Your task to perform on an android device: open app "Google Keep" (install if not already installed) Image 0: 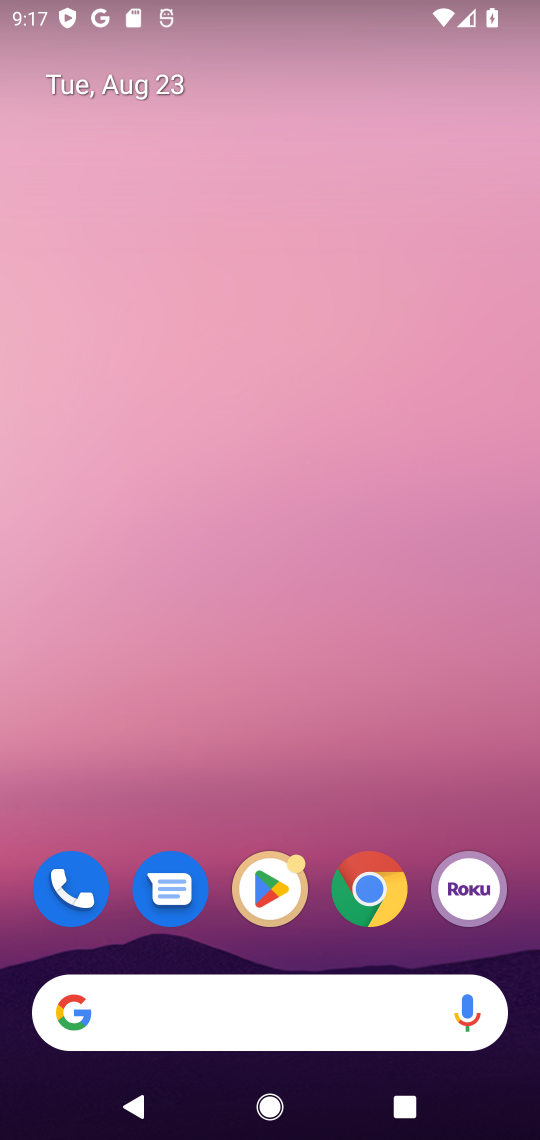
Step 0: click (256, 888)
Your task to perform on an android device: open app "Google Keep" (install if not already installed) Image 1: 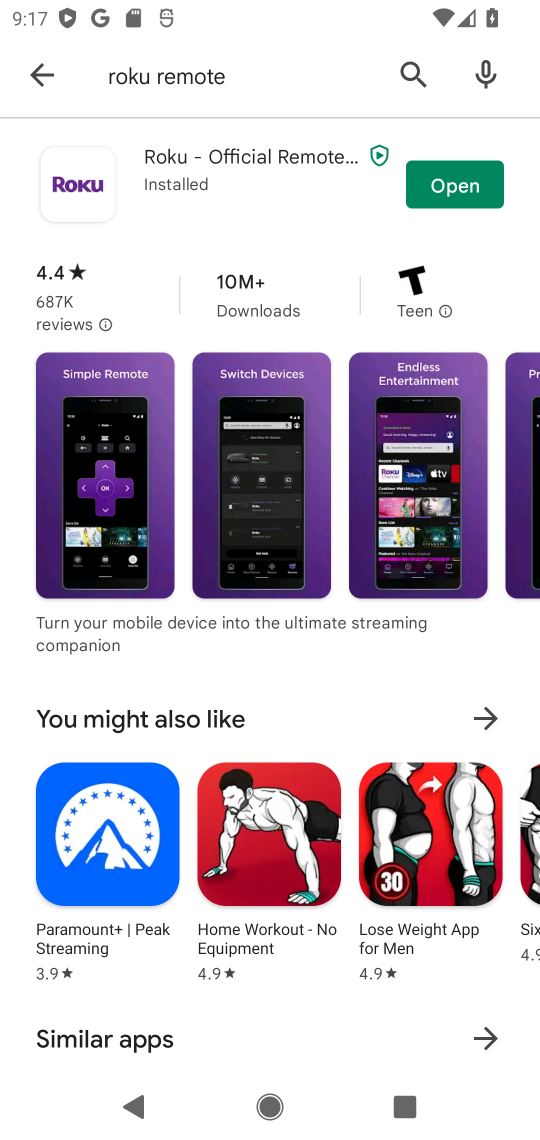
Step 1: click (36, 90)
Your task to perform on an android device: open app "Google Keep" (install if not already installed) Image 2: 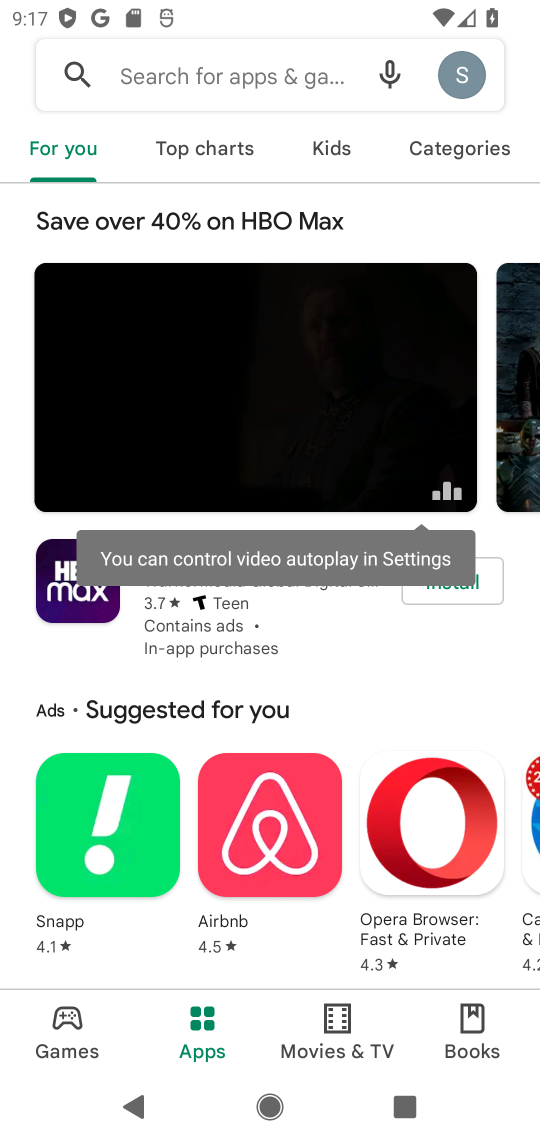
Step 2: click (221, 75)
Your task to perform on an android device: open app "Google Keep" (install if not already installed) Image 3: 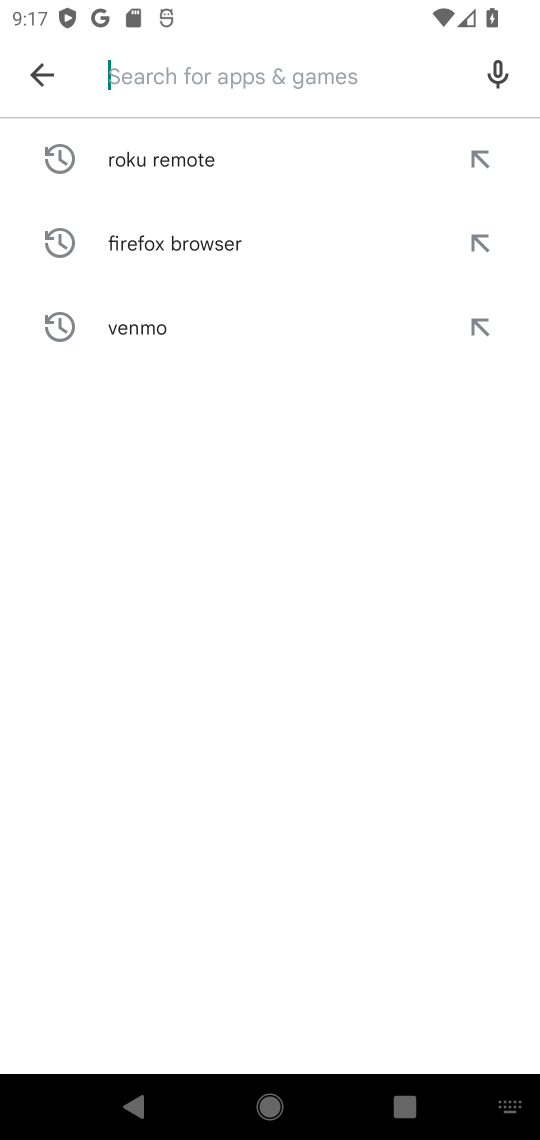
Step 3: type "Google Keep"
Your task to perform on an android device: open app "Google Keep" (install if not already installed) Image 4: 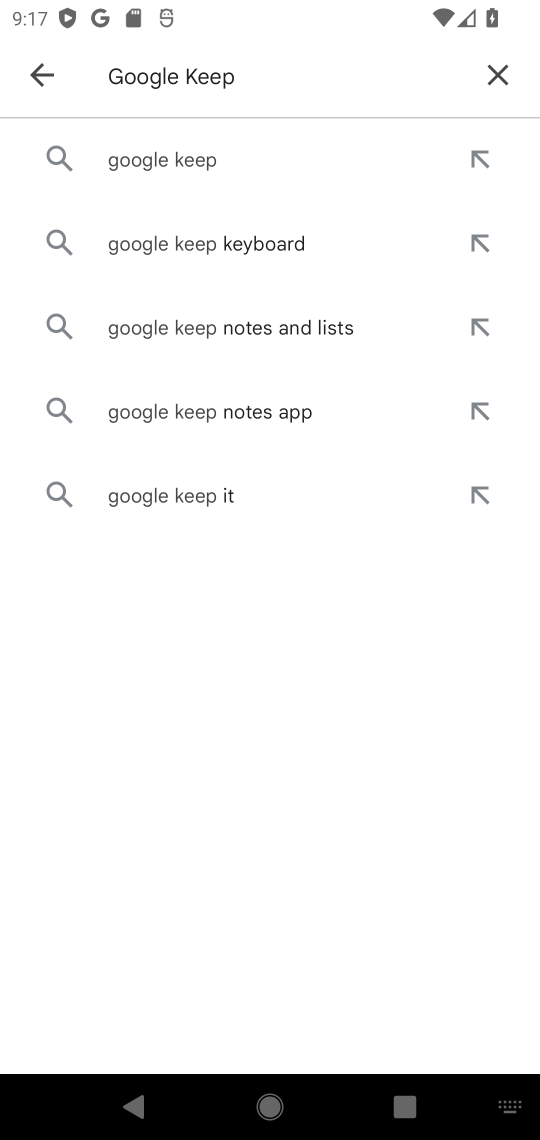
Step 4: click (141, 163)
Your task to perform on an android device: open app "Google Keep" (install if not already installed) Image 5: 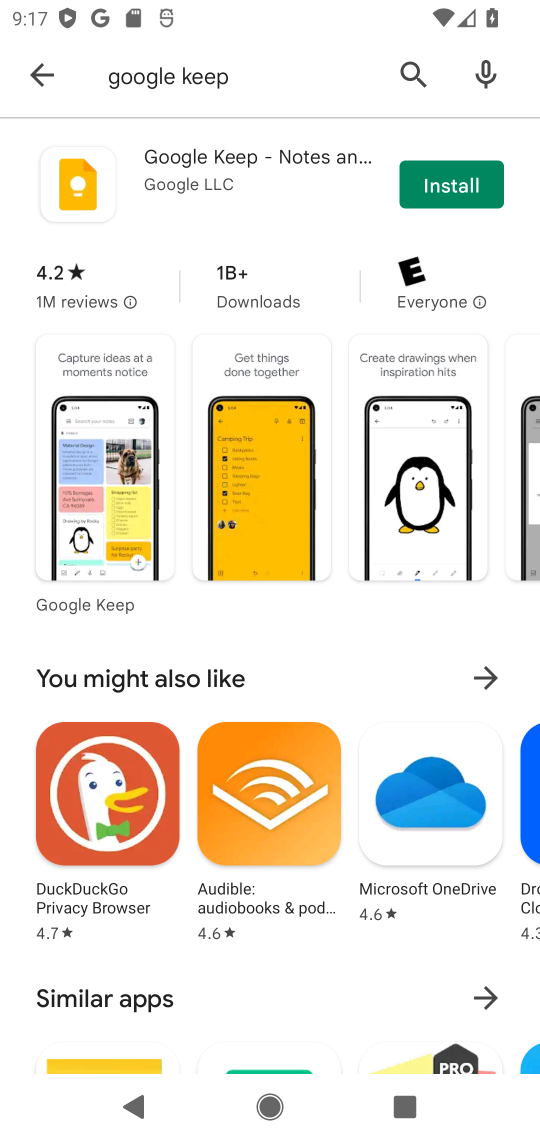
Step 5: click (461, 189)
Your task to perform on an android device: open app "Google Keep" (install if not already installed) Image 6: 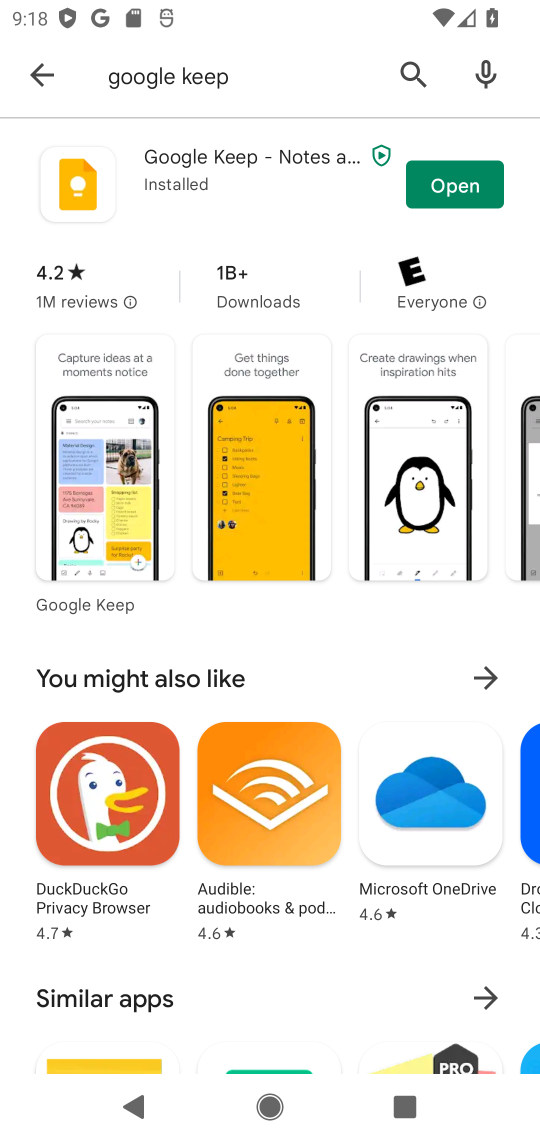
Step 6: click (461, 189)
Your task to perform on an android device: open app "Google Keep" (install if not already installed) Image 7: 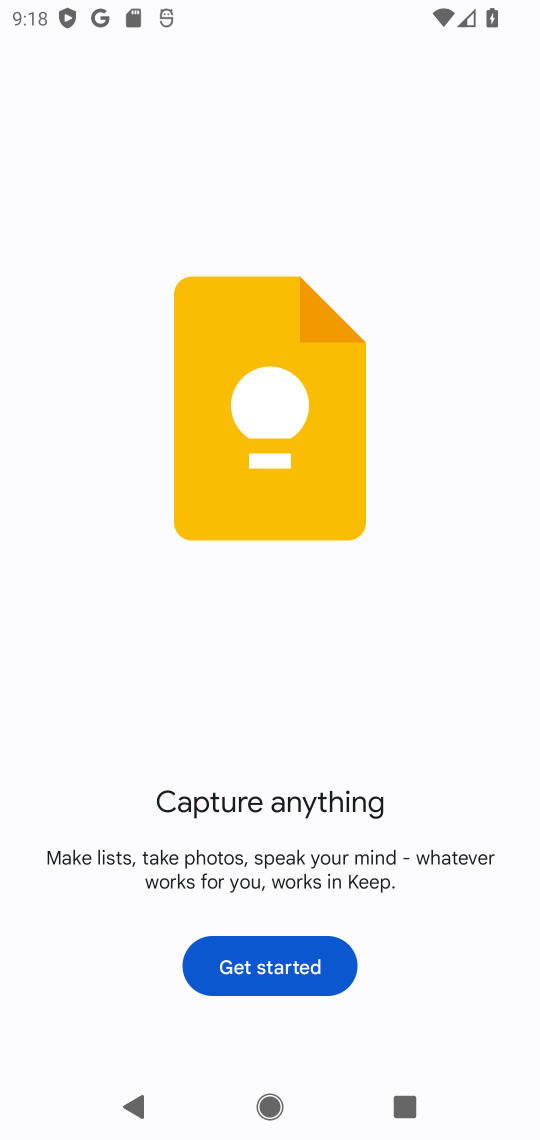
Step 7: task complete